Your task to perform on an android device: Search for vegetarian restaurants on Maps Image 0: 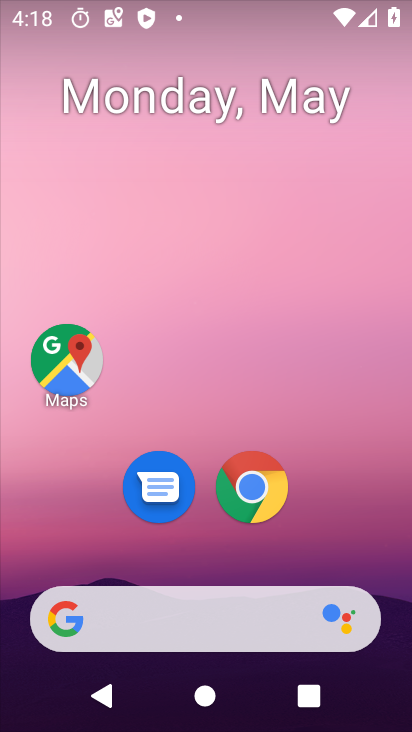
Step 0: click (66, 343)
Your task to perform on an android device: Search for vegetarian restaurants on Maps Image 1: 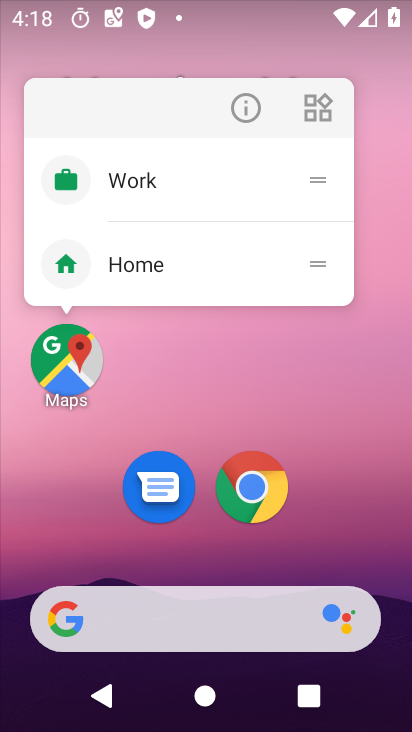
Step 1: click (65, 353)
Your task to perform on an android device: Search for vegetarian restaurants on Maps Image 2: 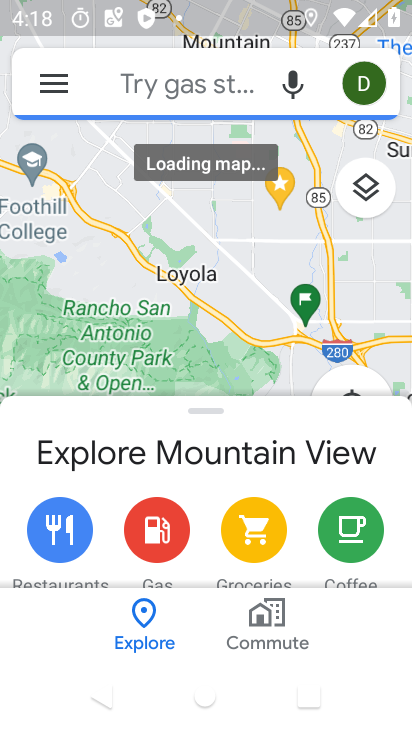
Step 2: click (195, 79)
Your task to perform on an android device: Search for vegetarian restaurants on Maps Image 3: 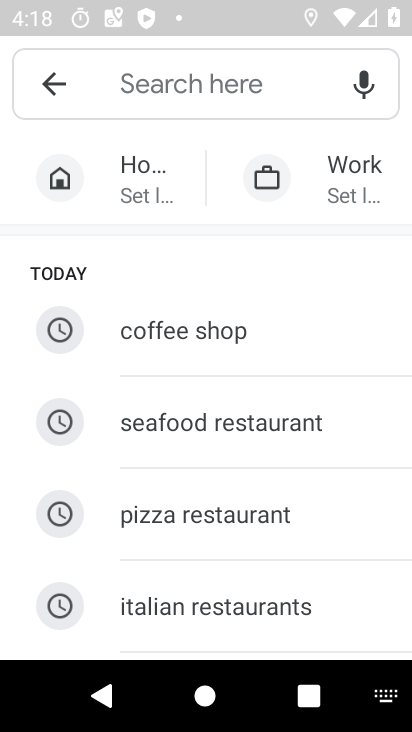
Step 3: drag from (172, 615) to (175, 253)
Your task to perform on an android device: Search for vegetarian restaurants on Maps Image 4: 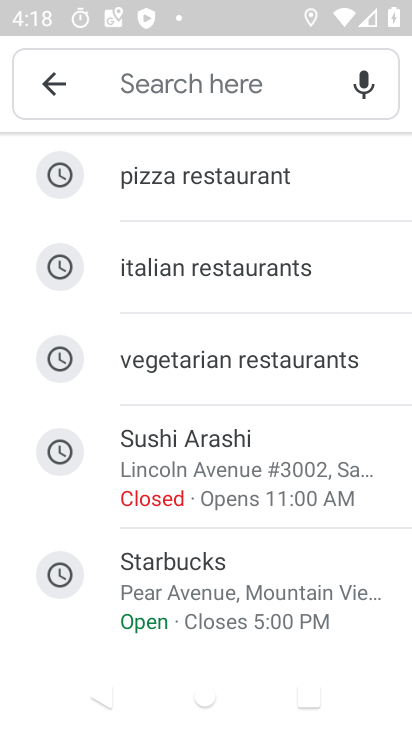
Step 4: click (181, 361)
Your task to perform on an android device: Search for vegetarian restaurants on Maps Image 5: 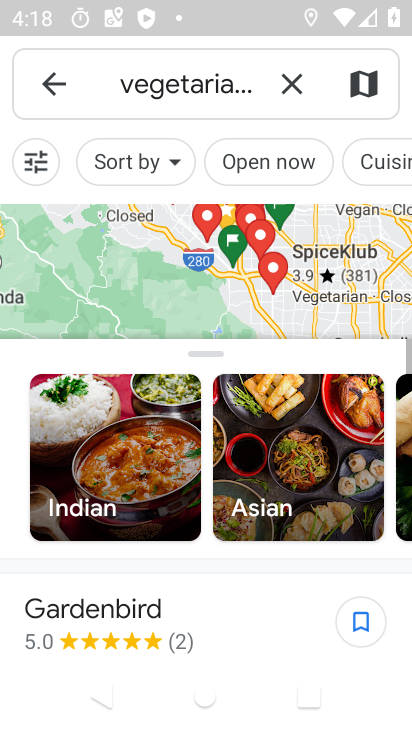
Step 5: task complete